Your task to perform on an android device: Show me popular games on the Play Store Image 0: 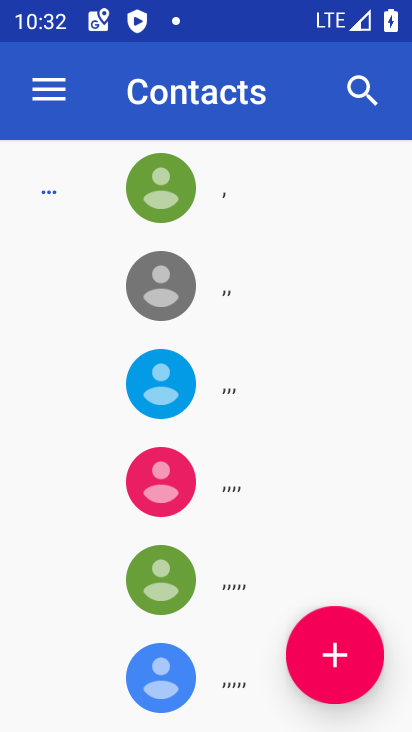
Step 0: press home button
Your task to perform on an android device: Show me popular games on the Play Store Image 1: 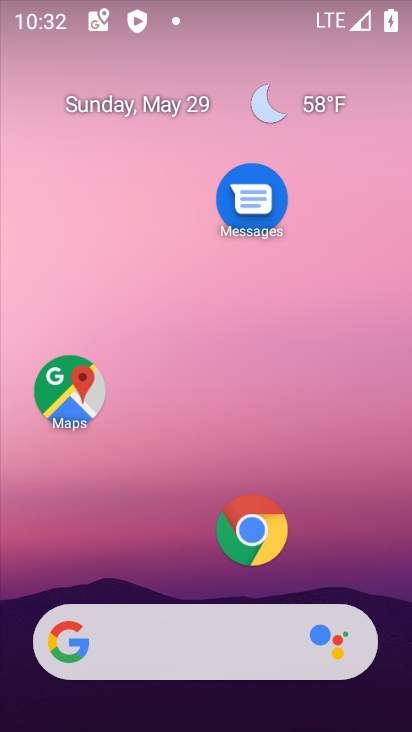
Step 1: drag from (146, 603) to (221, 1)
Your task to perform on an android device: Show me popular games on the Play Store Image 2: 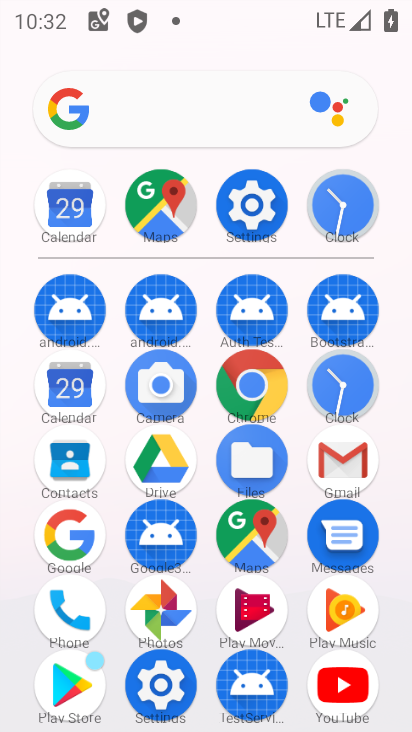
Step 2: click (84, 693)
Your task to perform on an android device: Show me popular games on the Play Store Image 3: 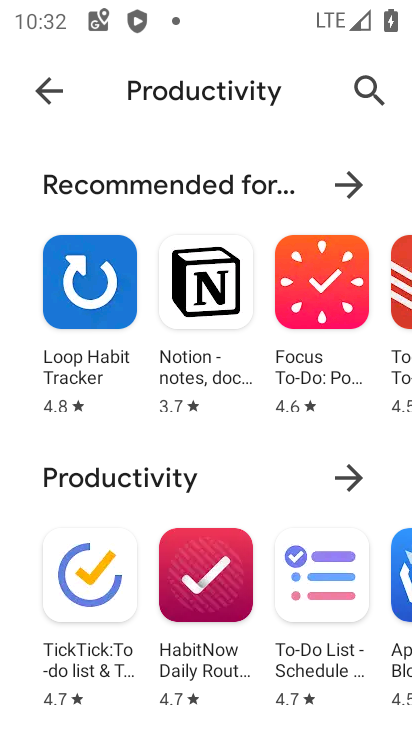
Step 3: click (50, 88)
Your task to perform on an android device: Show me popular games on the Play Store Image 4: 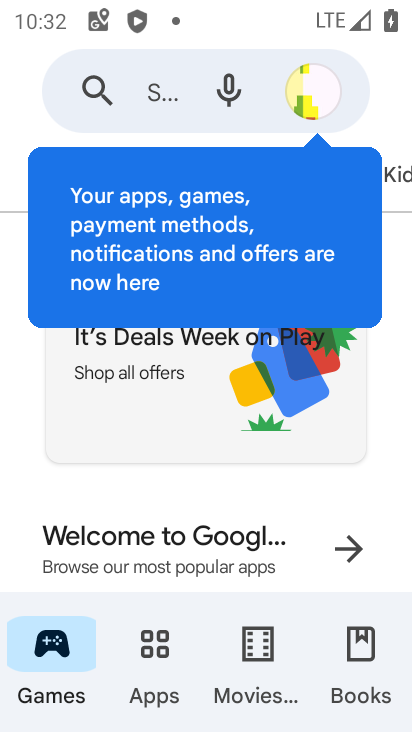
Step 4: click (13, 166)
Your task to perform on an android device: Show me popular games on the Play Store Image 5: 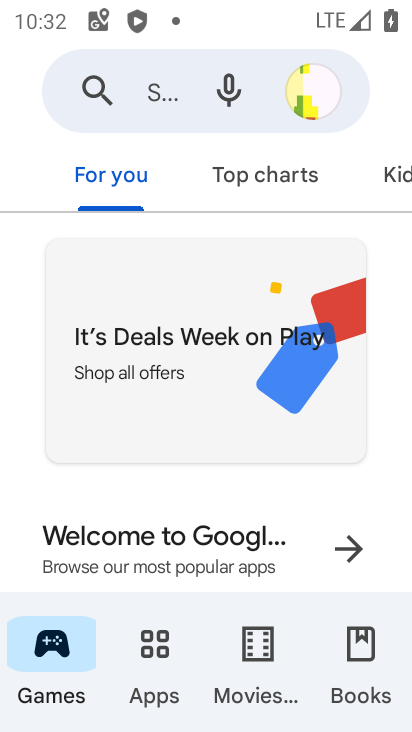
Step 5: click (255, 183)
Your task to perform on an android device: Show me popular games on the Play Store Image 6: 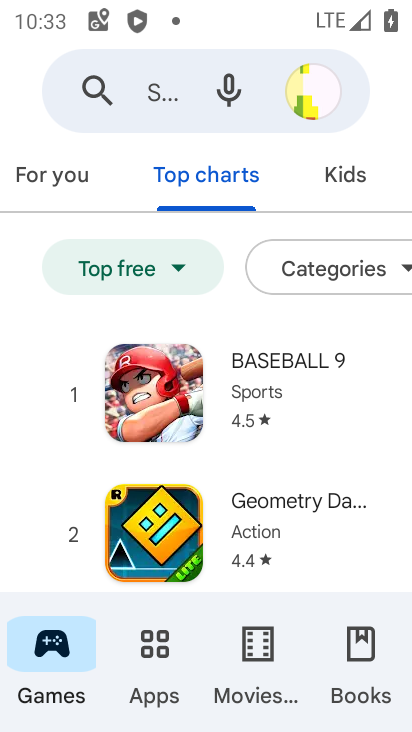
Step 6: task complete